Your task to perform on an android device: turn on the 12-hour format for clock Image 0: 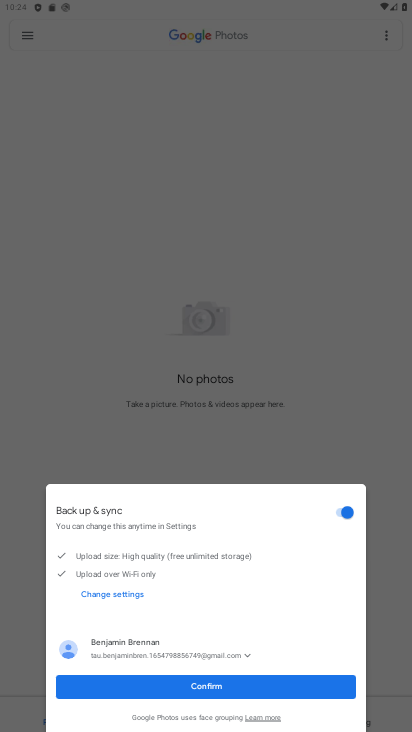
Step 0: press home button
Your task to perform on an android device: turn on the 12-hour format for clock Image 1: 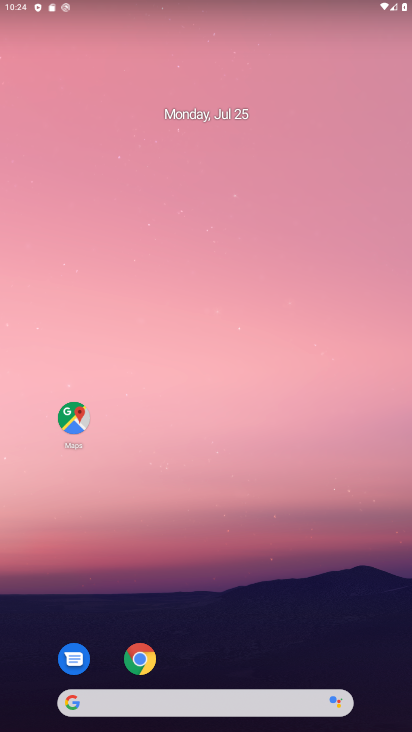
Step 1: drag from (228, 675) to (235, 22)
Your task to perform on an android device: turn on the 12-hour format for clock Image 2: 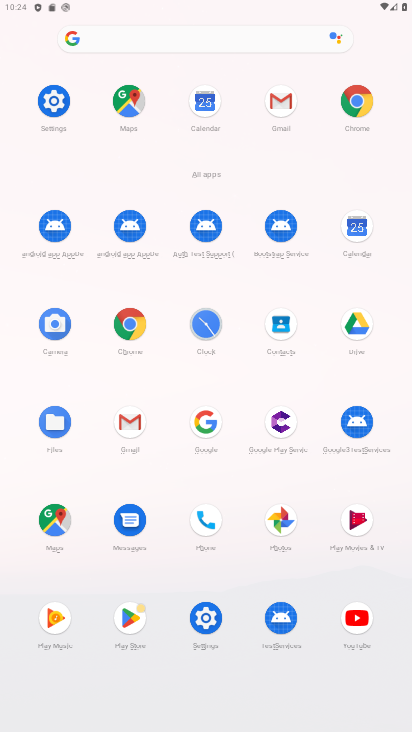
Step 2: click (199, 346)
Your task to perform on an android device: turn on the 12-hour format for clock Image 3: 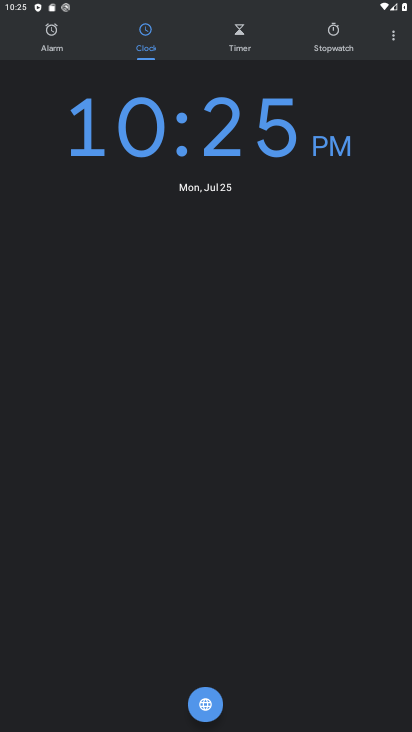
Step 3: click (401, 39)
Your task to perform on an android device: turn on the 12-hour format for clock Image 4: 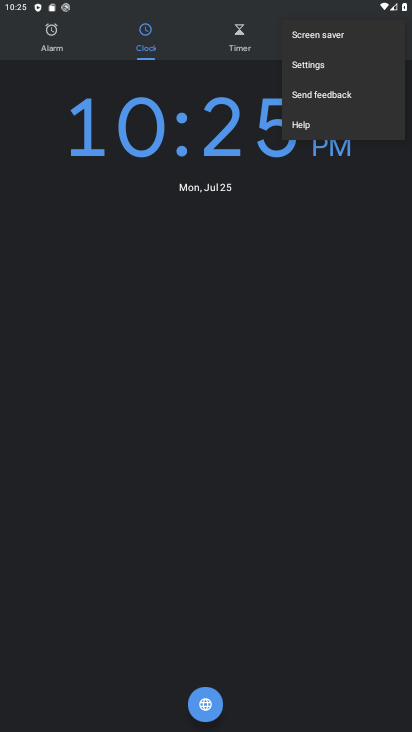
Step 4: click (323, 69)
Your task to perform on an android device: turn on the 12-hour format for clock Image 5: 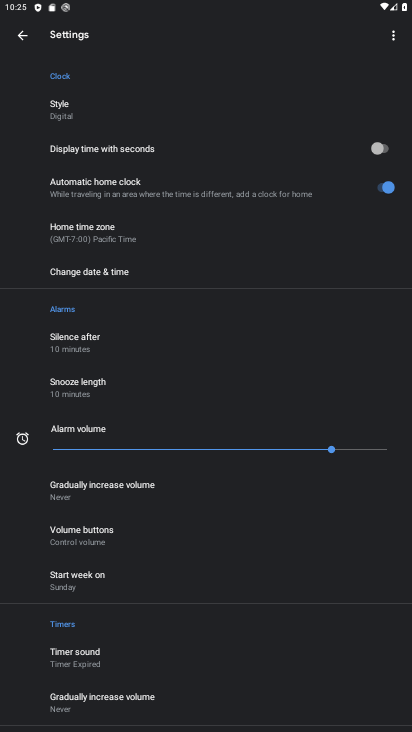
Step 5: click (52, 267)
Your task to perform on an android device: turn on the 12-hour format for clock Image 6: 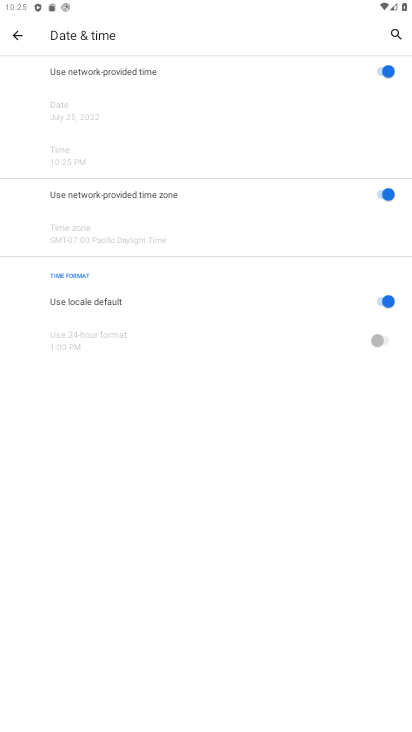
Step 6: task complete